Your task to perform on an android device: Open location settings Image 0: 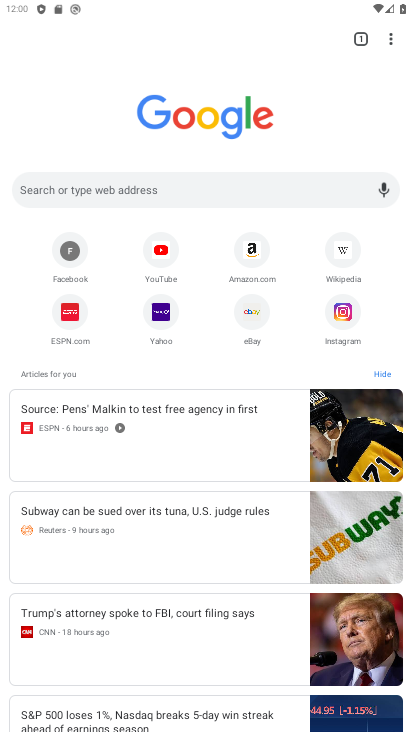
Step 0: press home button
Your task to perform on an android device: Open location settings Image 1: 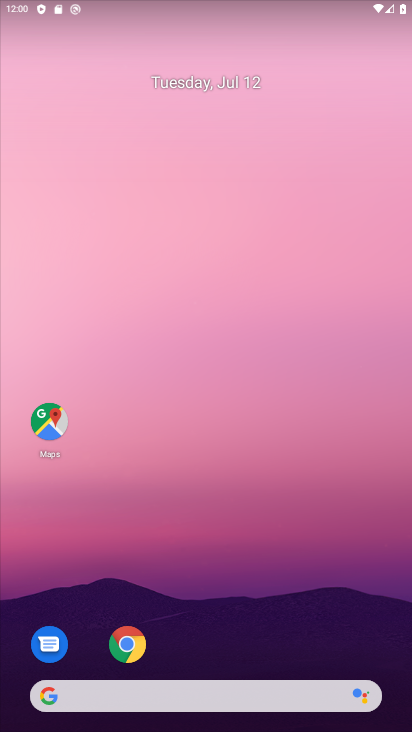
Step 1: drag from (55, 721) to (387, 6)
Your task to perform on an android device: Open location settings Image 2: 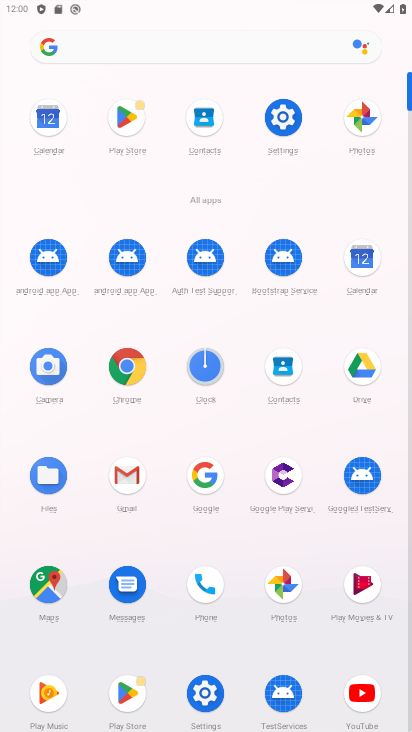
Step 2: click (211, 699)
Your task to perform on an android device: Open location settings Image 3: 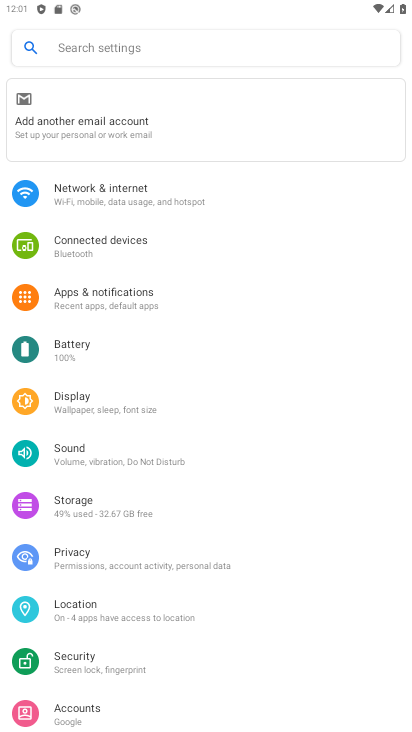
Step 3: click (108, 608)
Your task to perform on an android device: Open location settings Image 4: 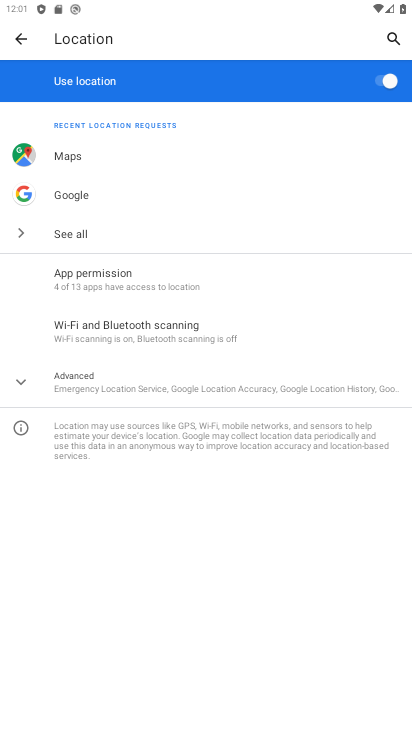
Step 4: task complete